Your task to perform on an android device: toggle pop-ups in chrome Image 0: 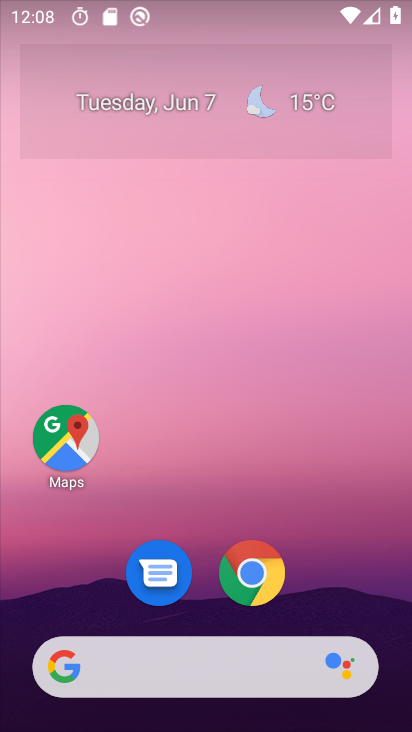
Step 0: click (245, 574)
Your task to perform on an android device: toggle pop-ups in chrome Image 1: 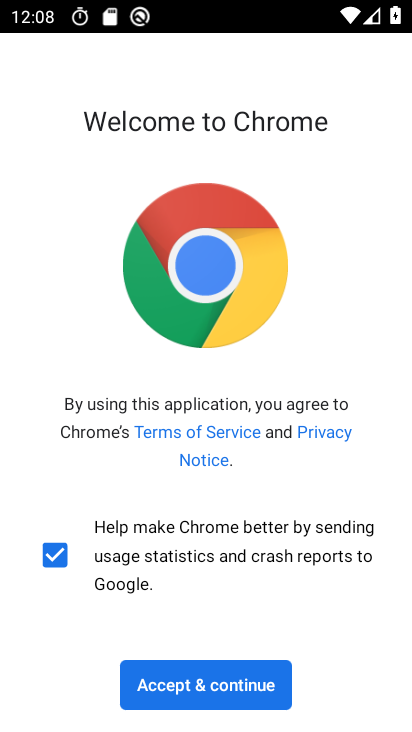
Step 1: click (227, 670)
Your task to perform on an android device: toggle pop-ups in chrome Image 2: 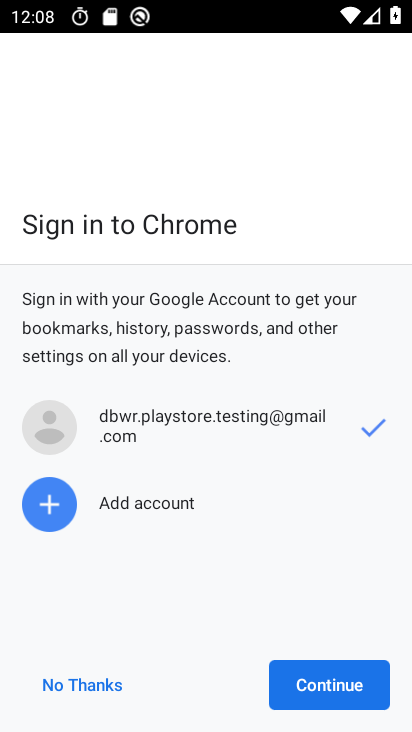
Step 2: click (312, 662)
Your task to perform on an android device: toggle pop-ups in chrome Image 3: 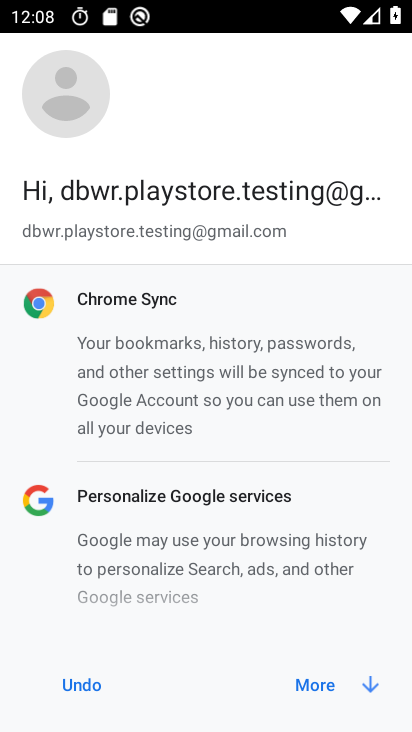
Step 3: click (325, 669)
Your task to perform on an android device: toggle pop-ups in chrome Image 4: 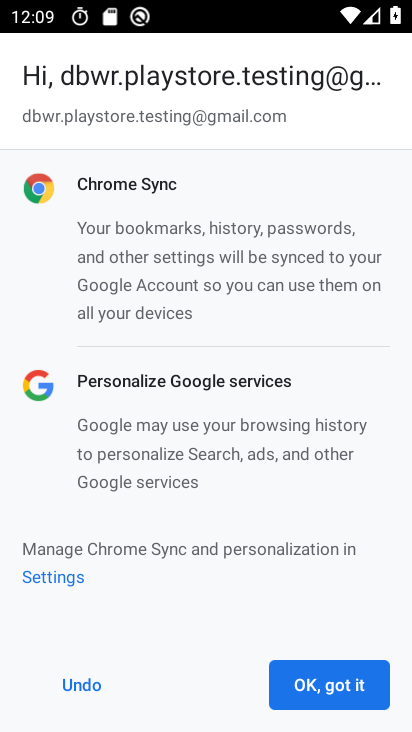
Step 4: click (336, 671)
Your task to perform on an android device: toggle pop-ups in chrome Image 5: 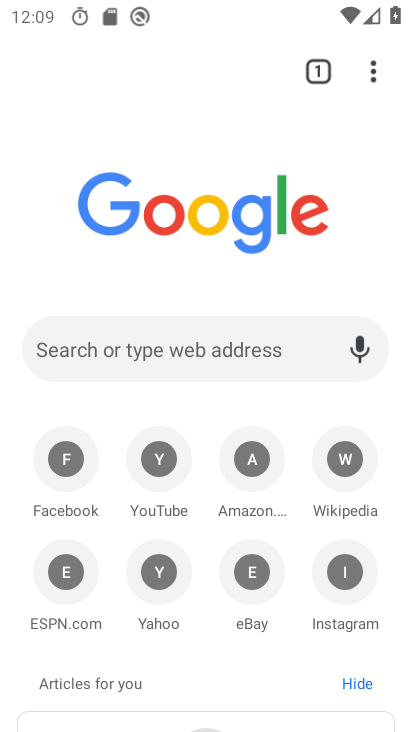
Step 5: click (374, 65)
Your task to perform on an android device: toggle pop-ups in chrome Image 6: 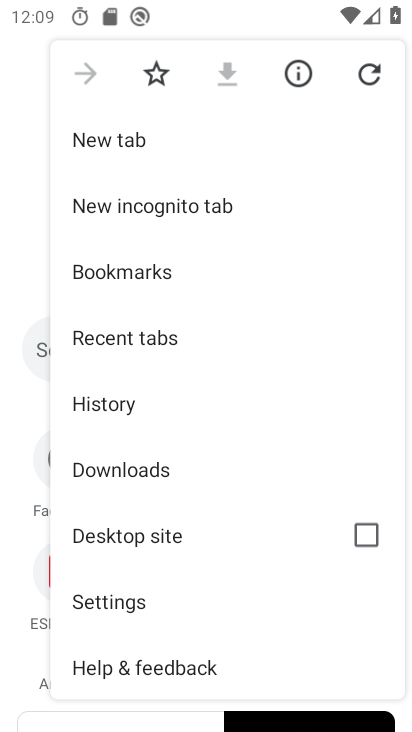
Step 6: drag from (180, 581) to (245, 303)
Your task to perform on an android device: toggle pop-ups in chrome Image 7: 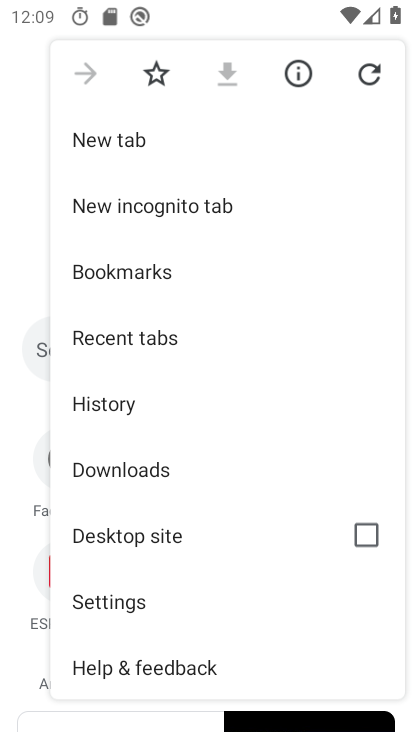
Step 7: click (122, 606)
Your task to perform on an android device: toggle pop-ups in chrome Image 8: 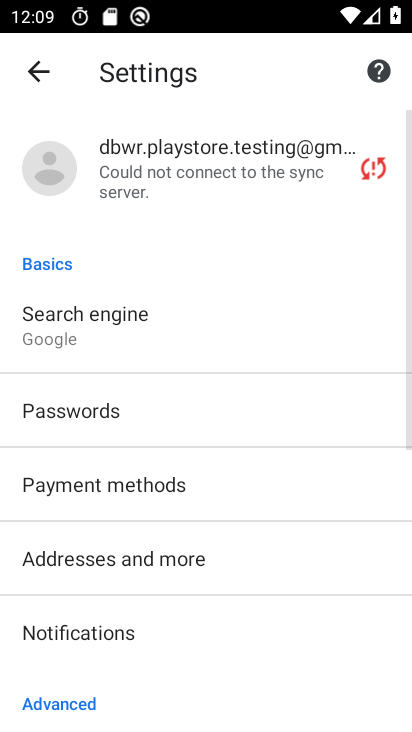
Step 8: drag from (202, 590) to (224, 361)
Your task to perform on an android device: toggle pop-ups in chrome Image 9: 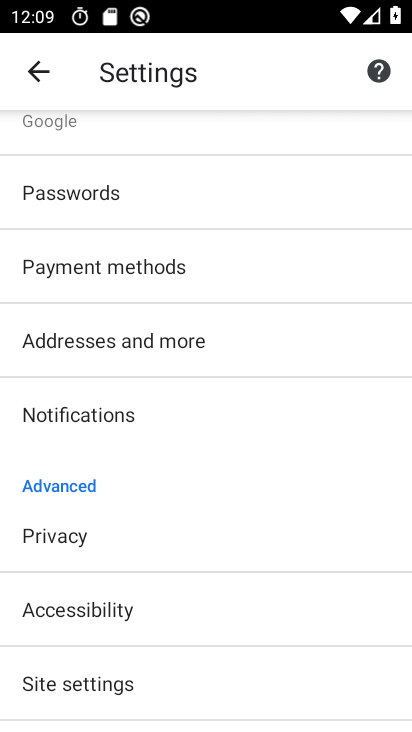
Step 9: drag from (195, 607) to (202, 403)
Your task to perform on an android device: toggle pop-ups in chrome Image 10: 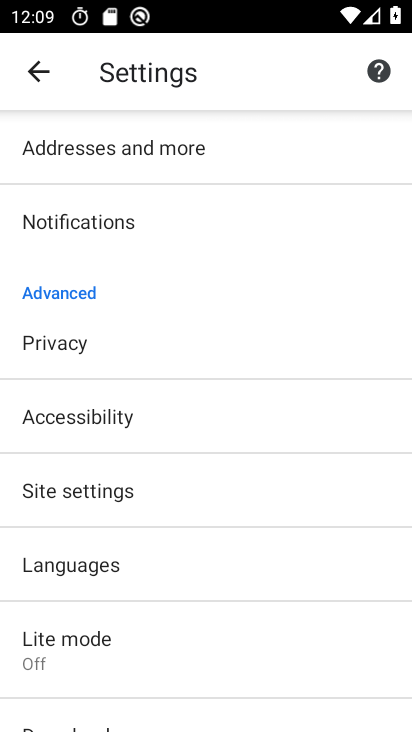
Step 10: click (137, 501)
Your task to perform on an android device: toggle pop-ups in chrome Image 11: 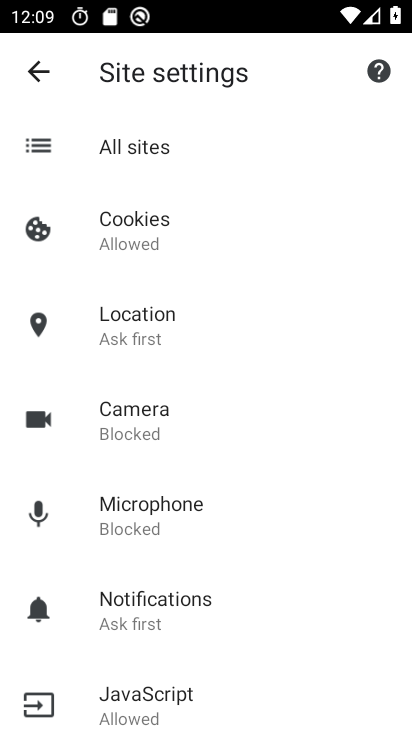
Step 11: drag from (189, 645) to (185, 398)
Your task to perform on an android device: toggle pop-ups in chrome Image 12: 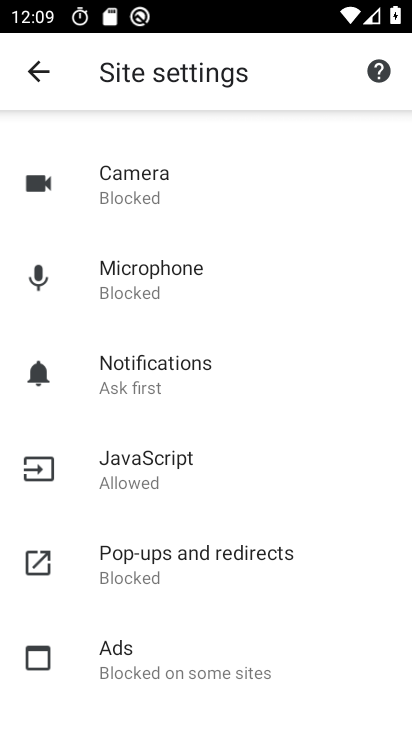
Step 12: click (201, 548)
Your task to perform on an android device: toggle pop-ups in chrome Image 13: 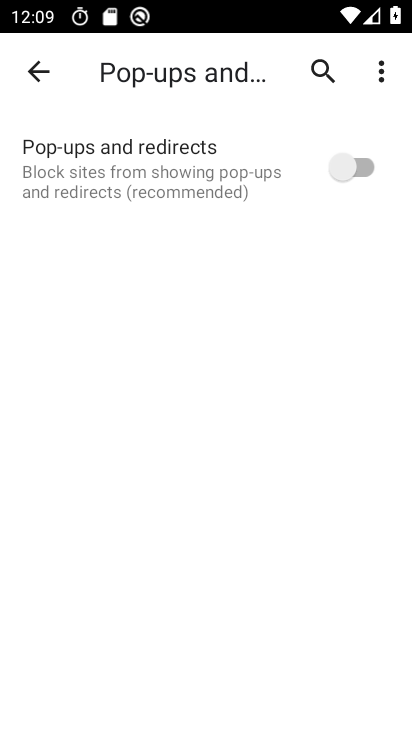
Step 13: click (362, 169)
Your task to perform on an android device: toggle pop-ups in chrome Image 14: 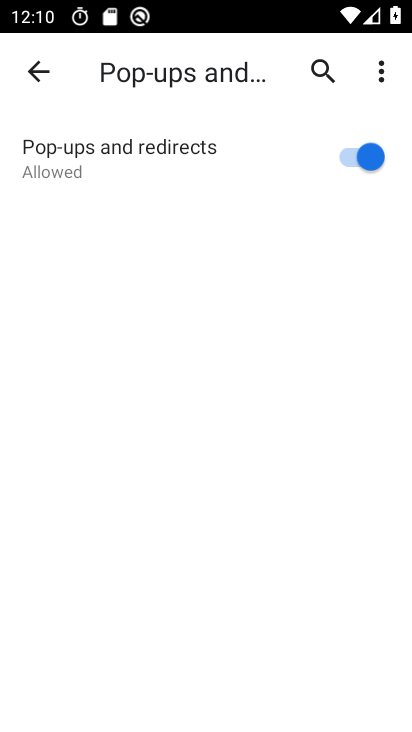
Step 14: task complete